Your task to perform on an android device: add a label to a message in the gmail app Image 0: 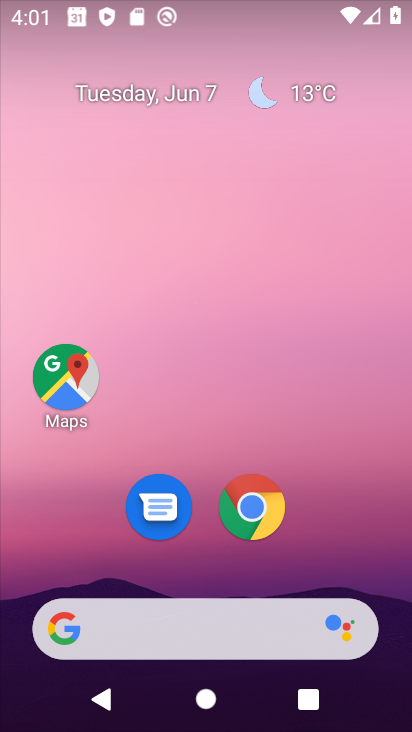
Step 0: drag from (347, 529) to (219, 7)
Your task to perform on an android device: add a label to a message in the gmail app Image 1: 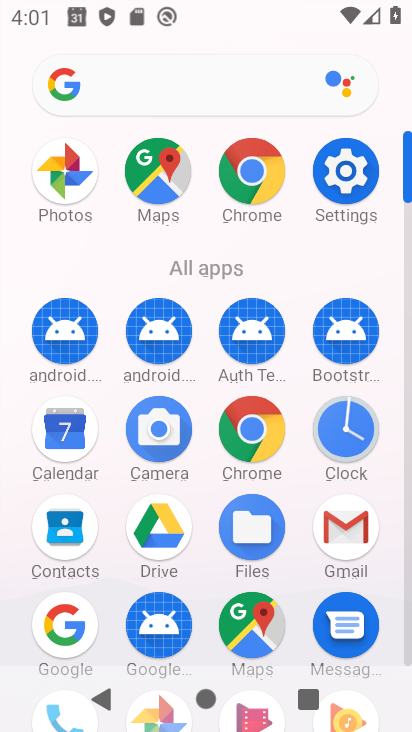
Step 1: click (344, 523)
Your task to perform on an android device: add a label to a message in the gmail app Image 2: 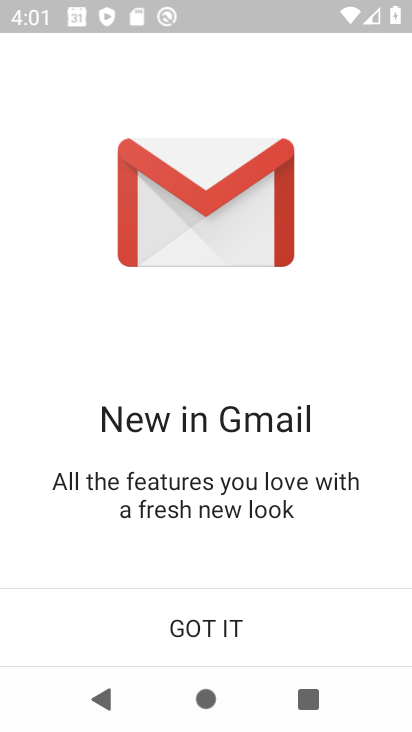
Step 2: click (200, 611)
Your task to perform on an android device: add a label to a message in the gmail app Image 3: 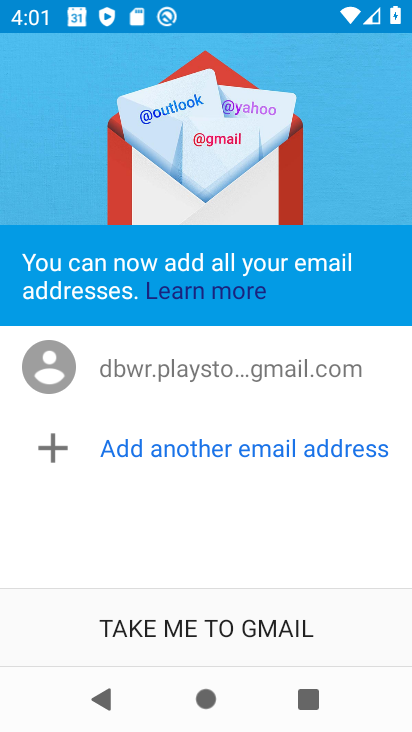
Step 3: click (200, 611)
Your task to perform on an android device: add a label to a message in the gmail app Image 4: 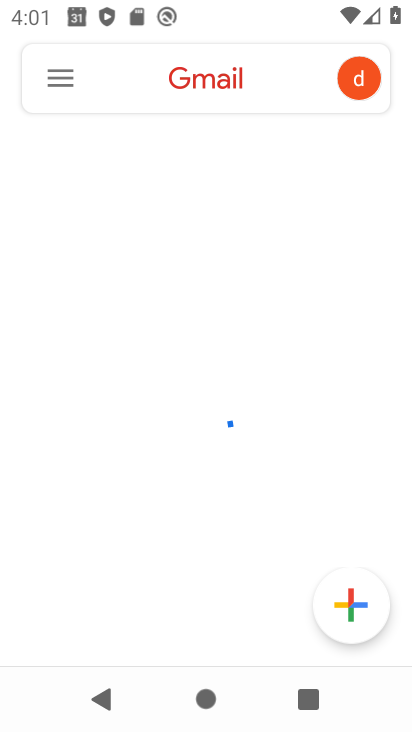
Step 4: click (65, 79)
Your task to perform on an android device: add a label to a message in the gmail app Image 5: 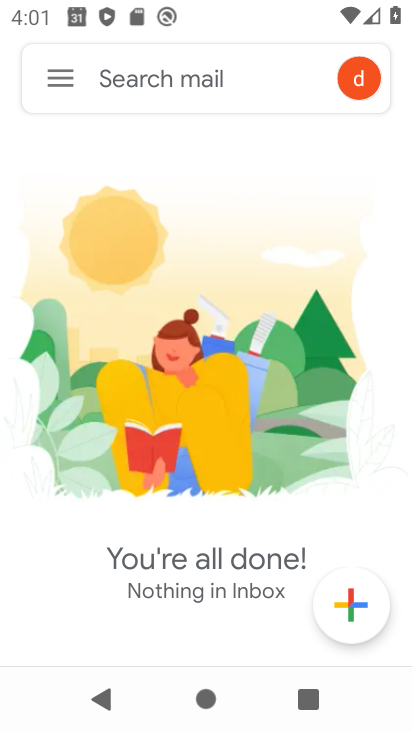
Step 5: click (65, 79)
Your task to perform on an android device: add a label to a message in the gmail app Image 6: 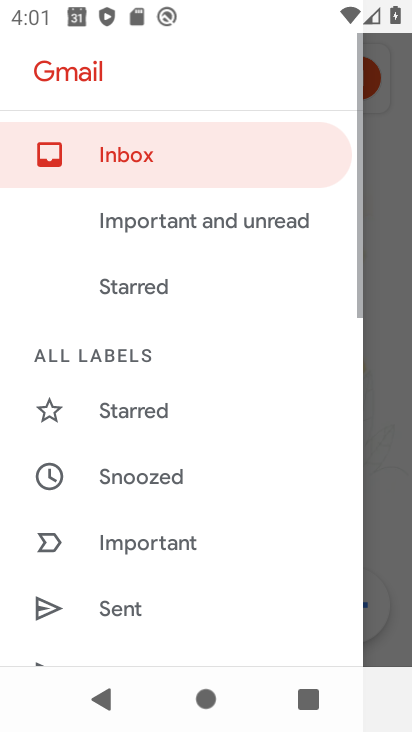
Step 6: drag from (238, 188) to (252, 556)
Your task to perform on an android device: add a label to a message in the gmail app Image 7: 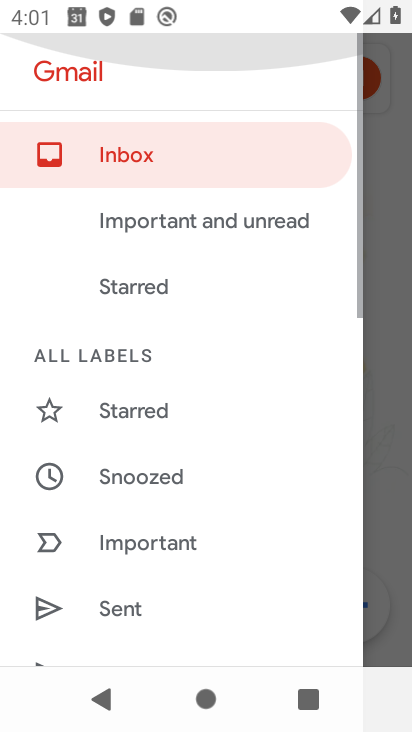
Step 7: drag from (245, 581) to (264, 218)
Your task to perform on an android device: add a label to a message in the gmail app Image 8: 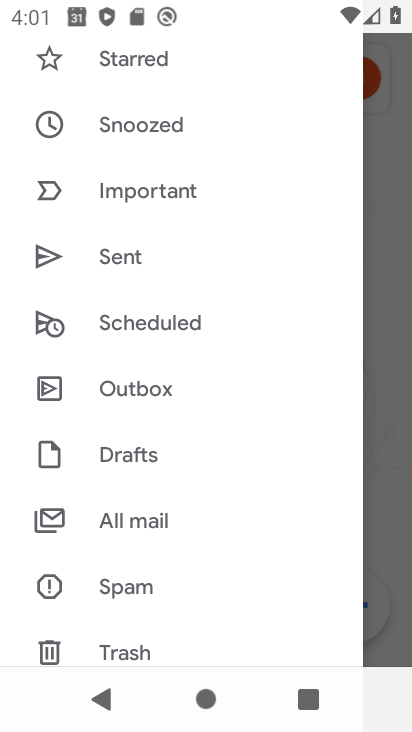
Step 8: drag from (222, 530) to (259, 129)
Your task to perform on an android device: add a label to a message in the gmail app Image 9: 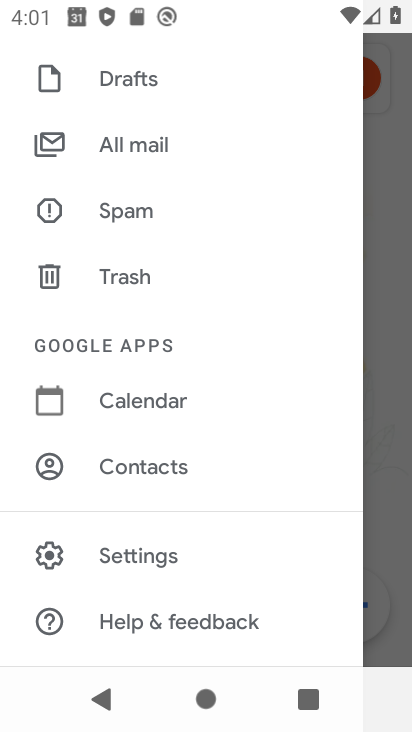
Step 9: drag from (234, 441) to (238, 497)
Your task to perform on an android device: add a label to a message in the gmail app Image 10: 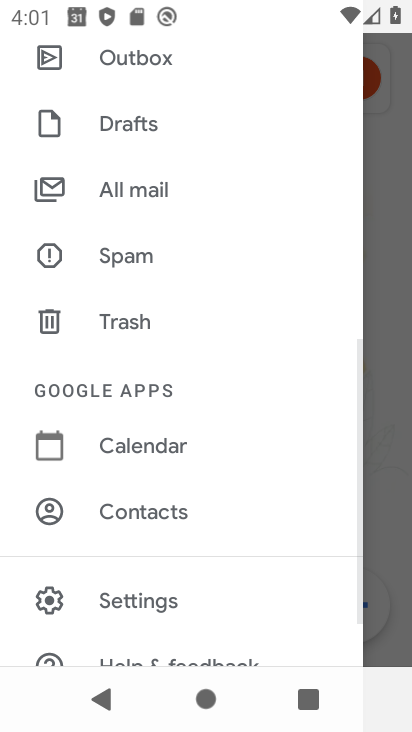
Step 10: drag from (233, 452) to (259, 103)
Your task to perform on an android device: add a label to a message in the gmail app Image 11: 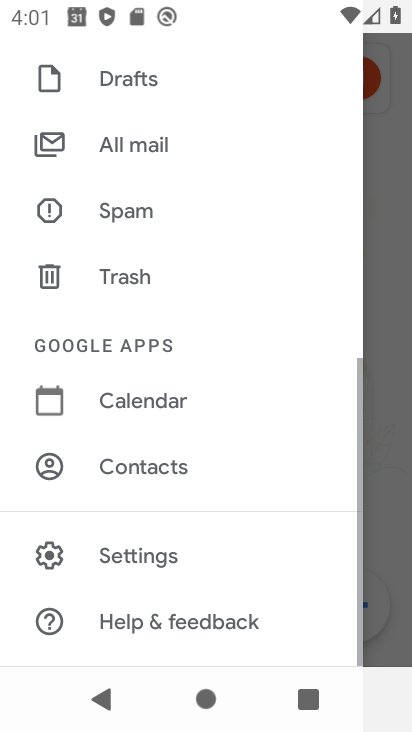
Step 11: drag from (246, 137) to (216, 596)
Your task to perform on an android device: add a label to a message in the gmail app Image 12: 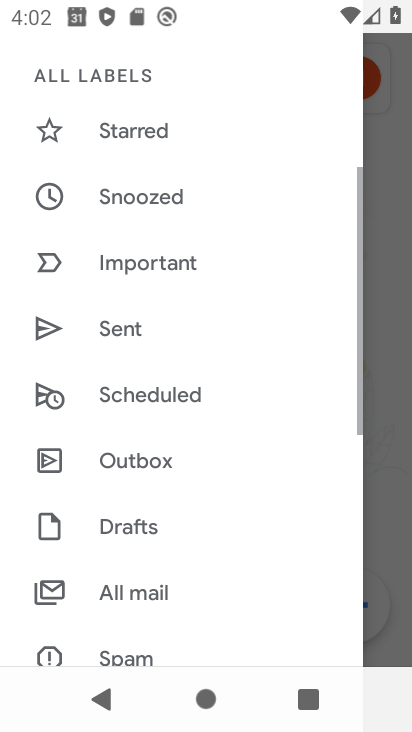
Step 12: click (158, 139)
Your task to perform on an android device: add a label to a message in the gmail app Image 13: 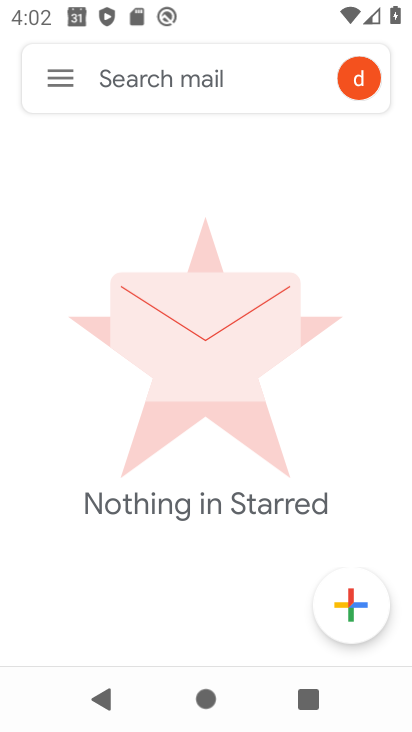
Step 13: click (42, 74)
Your task to perform on an android device: add a label to a message in the gmail app Image 14: 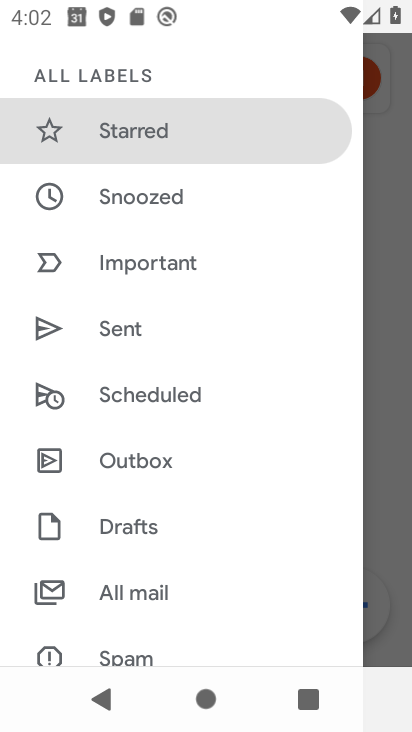
Step 14: click (155, 336)
Your task to perform on an android device: add a label to a message in the gmail app Image 15: 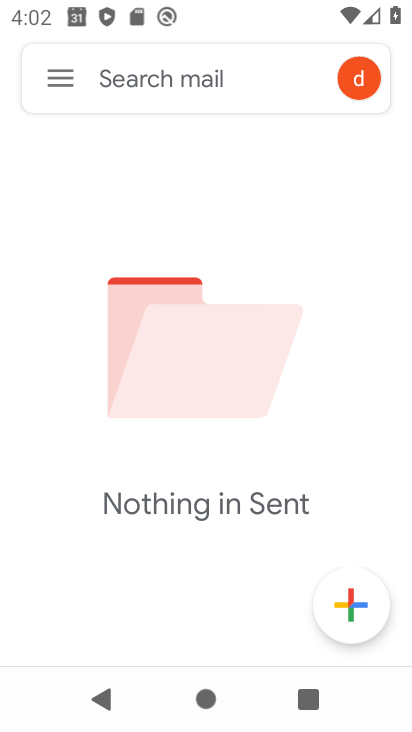
Step 15: click (71, 77)
Your task to perform on an android device: add a label to a message in the gmail app Image 16: 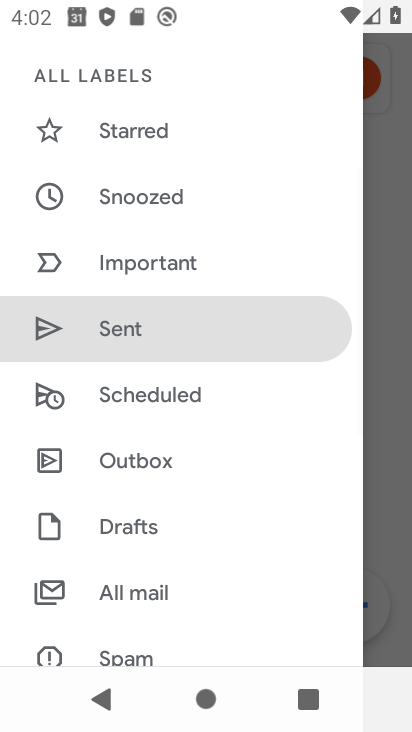
Step 16: click (158, 578)
Your task to perform on an android device: add a label to a message in the gmail app Image 17: 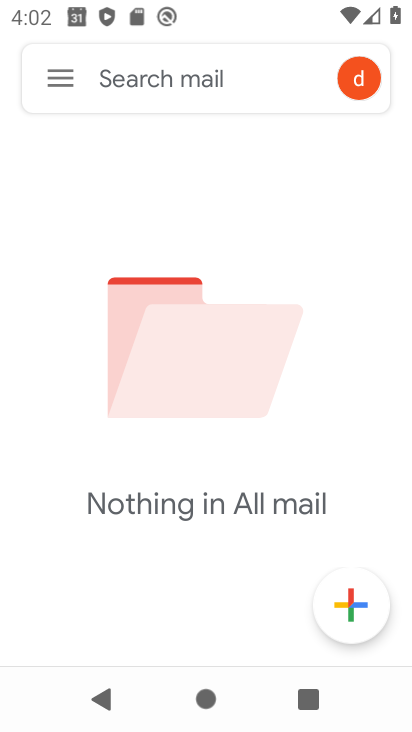
Step 17: click (56, 72)
Your task to perform on an android device: add a label to a message in the gmail app Image 18: 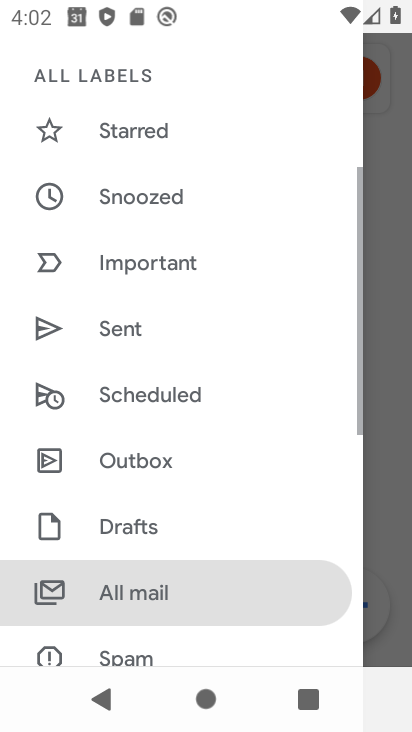
Step 18: drag from (170, 200) to (207, 550)
Your task to perform on an android device: add a label to a message in the gmail app Image 19: 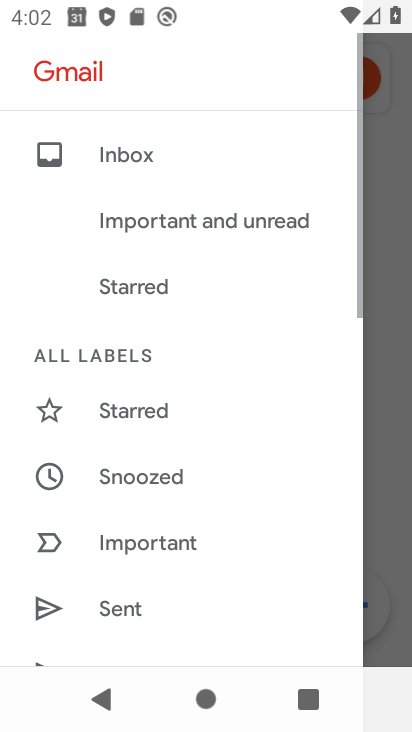
Step 19: click (156, 405)
Your task to perform on an android device: add a label to a message in the gmail app Image 20: 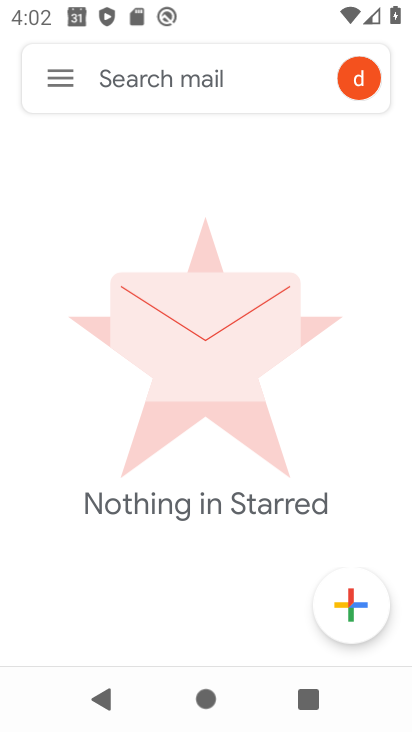
Step 20: task complete